Your task to perform on an android device: turn vacation reply on in the gmail app Image 0: 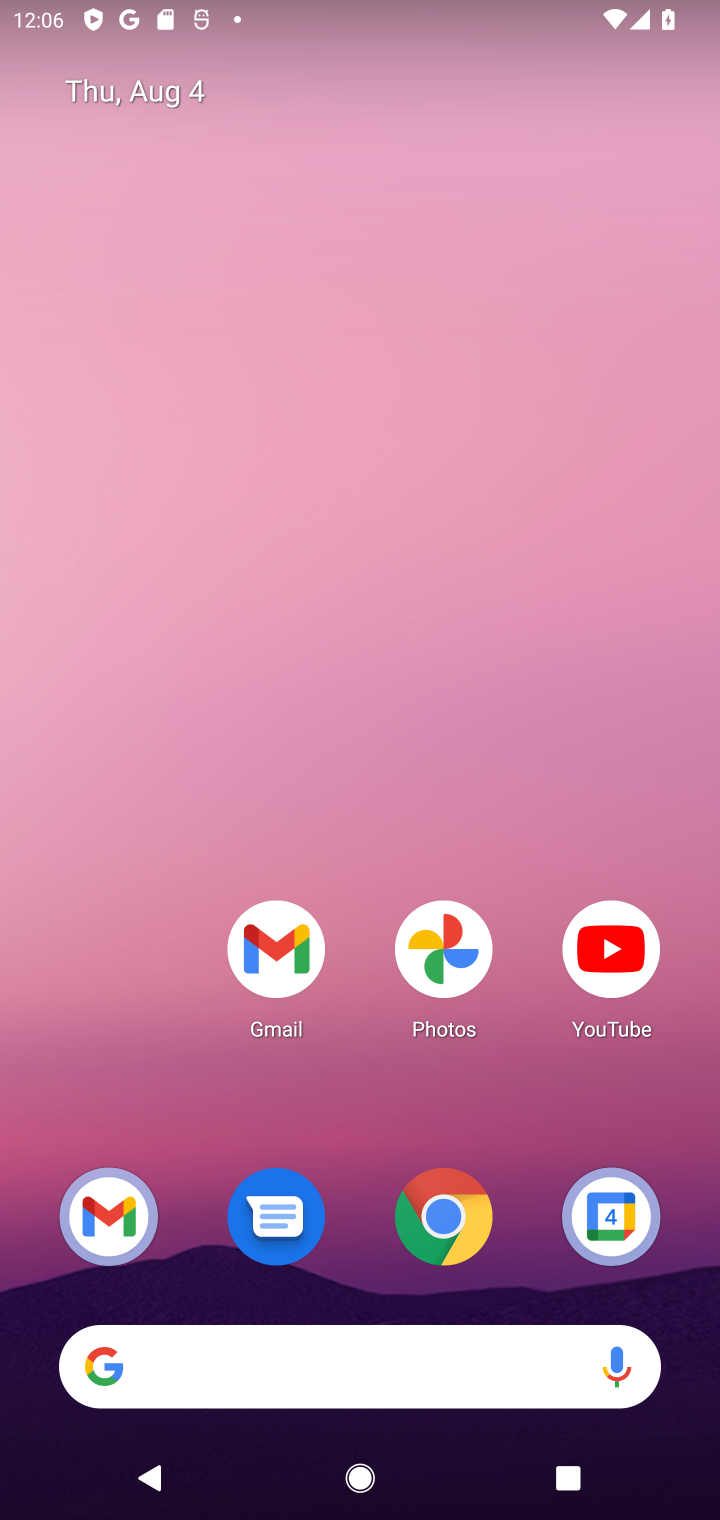
Step 0: drag from (124, 879) to (82, 457)
Your task to perform on an android device: turn vacation reply on in the gmail app Image 1: 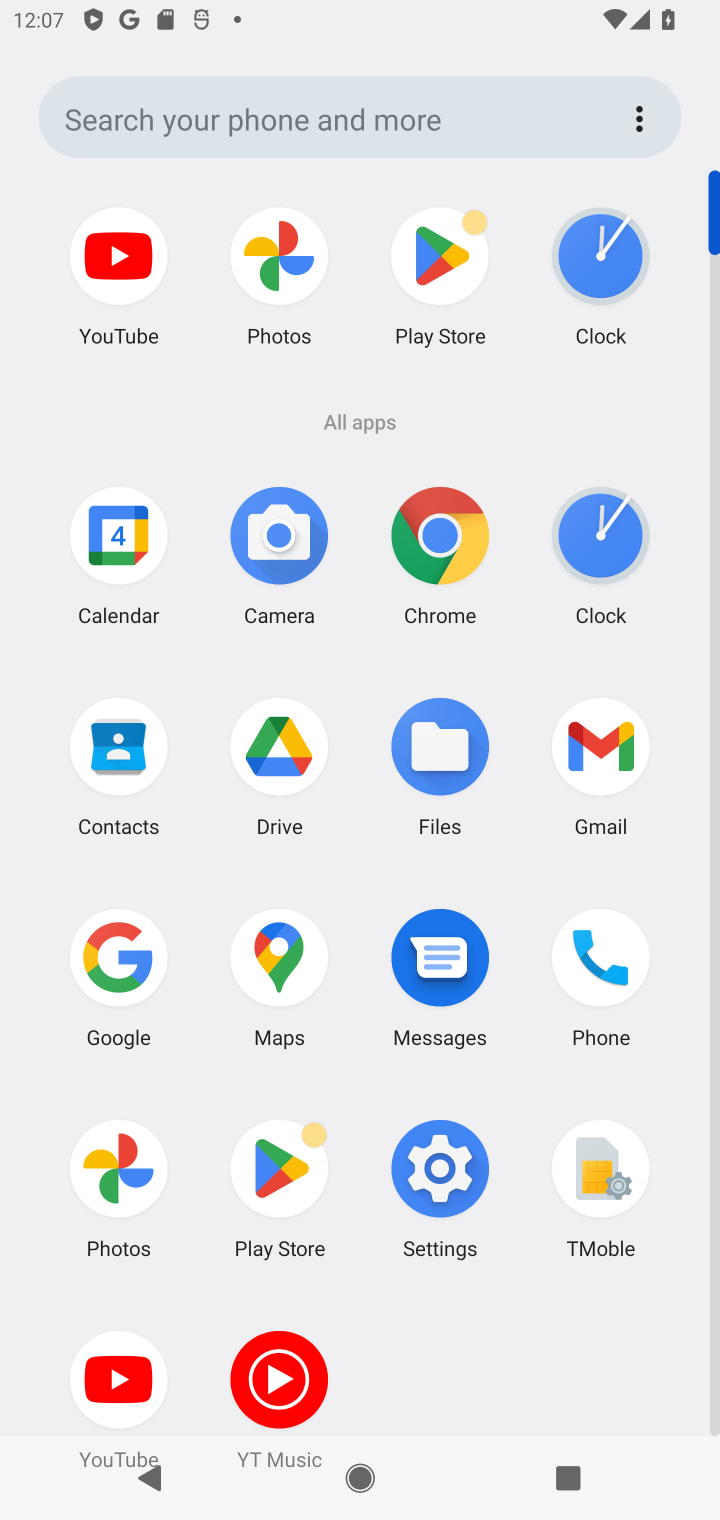
Step 1: click (90, 263)
Your task to perform on an android device: turn vacation reply on in the gmail app Image 2: 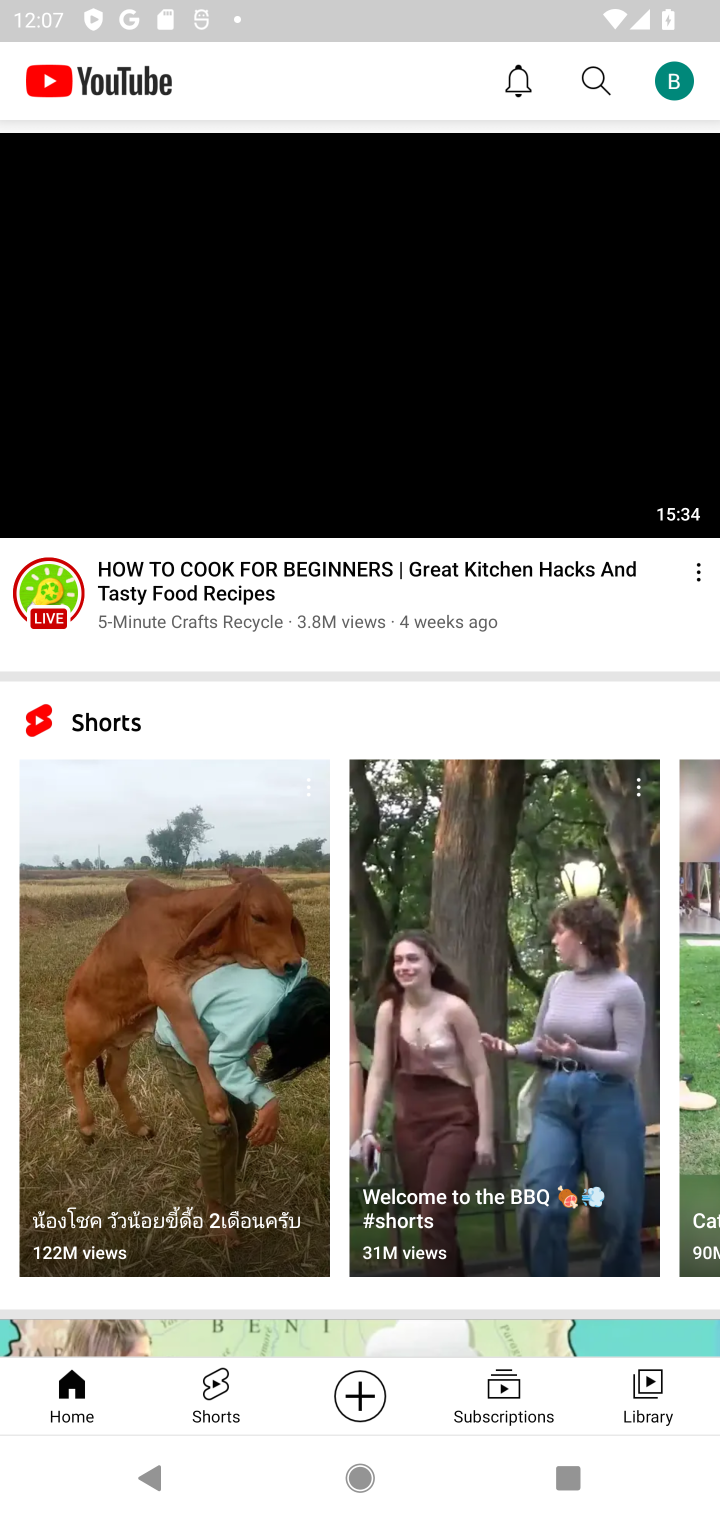
Step 2: task complete